Your task to perform on an android device: turn off priority inbox in the gmail app Image 0: 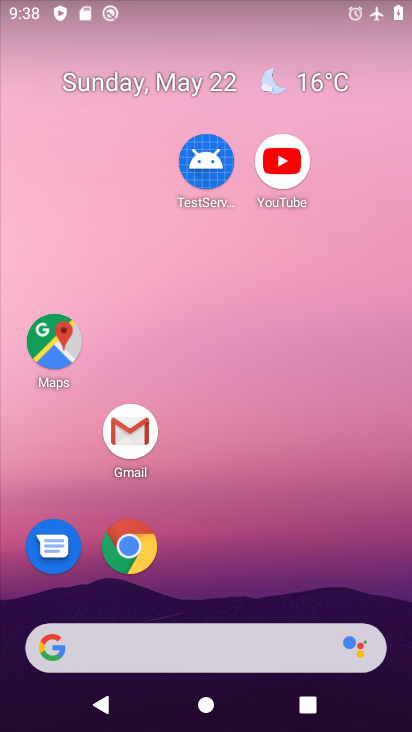
Step 0: drag from (270, 705) to (198, 203)
Your task to perform on an android device: turn off priority inbox in the gmail app Image 1: 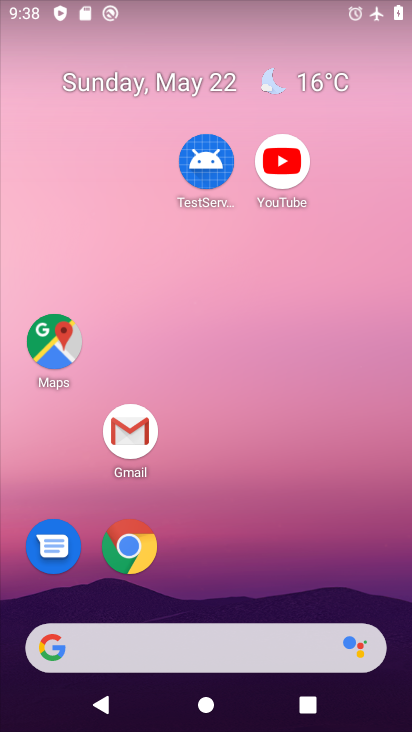
Step 1: drag from (285, 701) to (280, 148)
Your task to perform on an android device: turn off priority inbox in the gmail app Image 2: 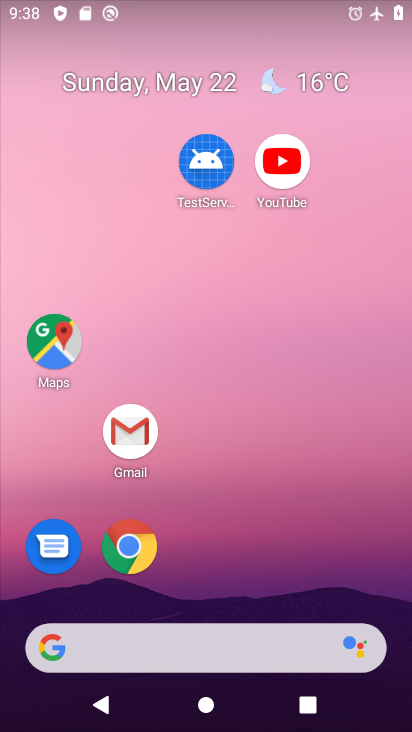
Step 2: drag from (238, 698) to (188, 156)
Your task to perform on an android device: turn off priority inbox in the gmail app Image 3: 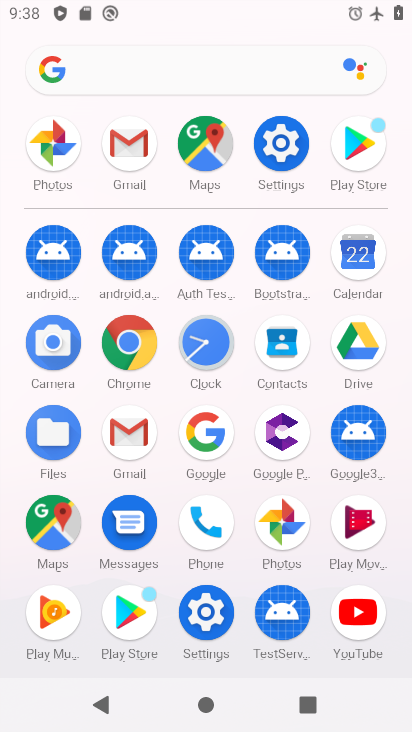
Step 3: click (136, 426)
Your task to perform on an android device: turn off priority inbox in the gmail app Image 4: 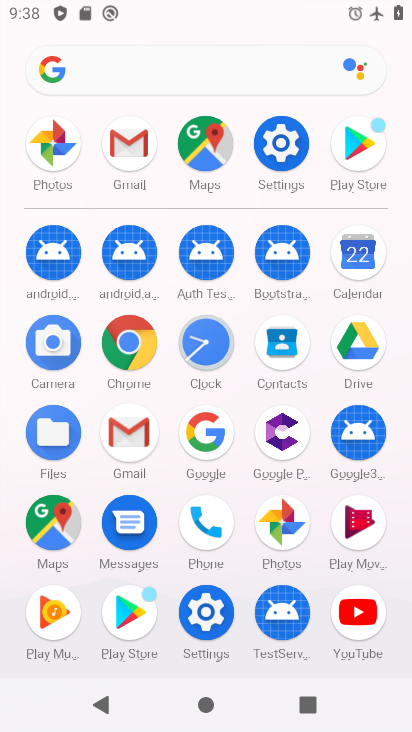
Step 4: click (141, 420)
Your task to perform on an android device: turn off priority inbox in the gmail app Image 5: 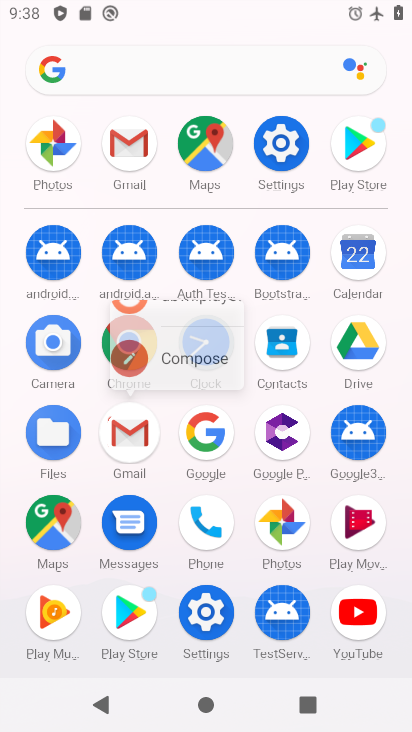
Step 5: click (141, 420)
Your task to perform on an android device: turn off priority inbox in the gmail app Image 6: 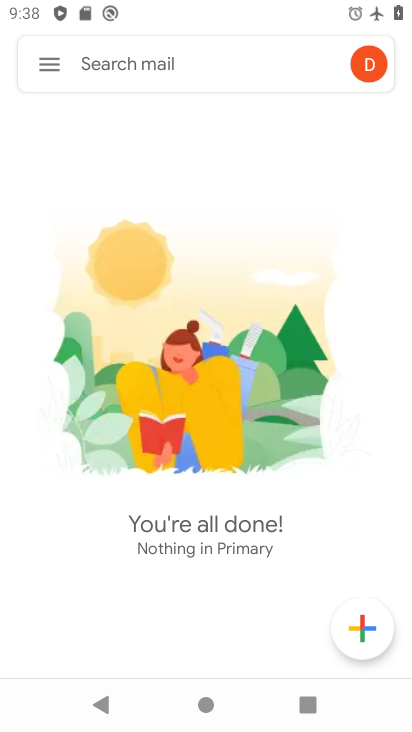
Step 6: click (38, 63)
Your task to perform on an android device: turn off priority inbox in the gmail app Image 7: 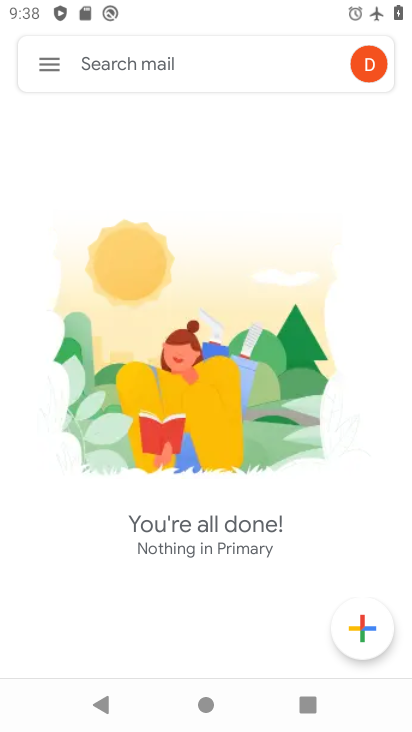
Step 7: click (58, 56)
Your task to perform on an android device: turn off priority inbox in the gmail app Image 8: 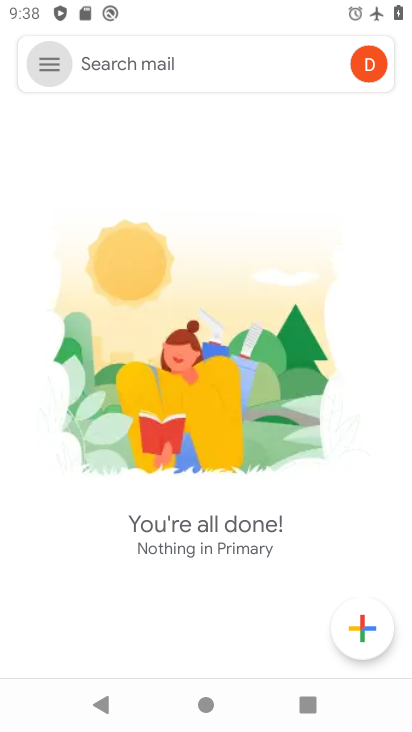
Step 8: click (58, 56)
Your task to perform on an android device: turn off priority inbox in the gmail app Image 9: 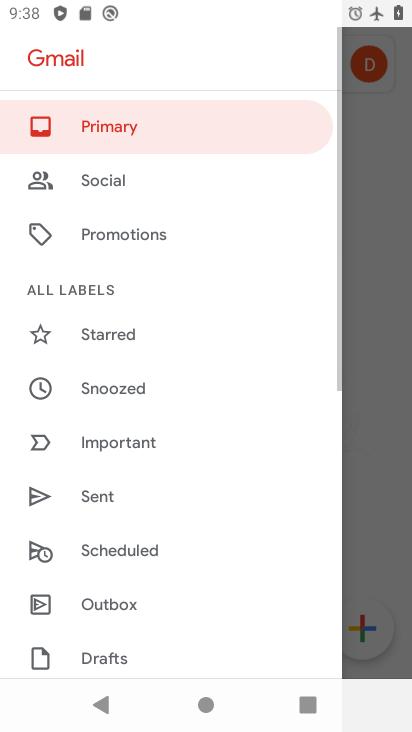
Step 9: drag from (161, 603) to (207, 93)
Your task to perform on an android device: turn off priority inbox in the gmail app Image 10: 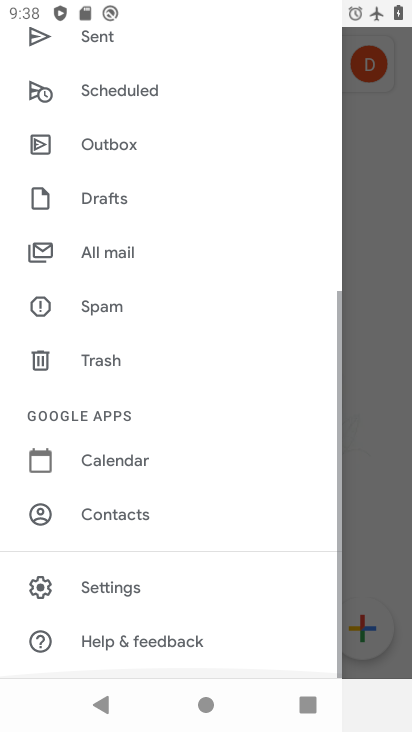
Step 10: drag from (199, 510) to (165, 188)
Your task to perform on an android device: turn off priority inbox in the gmail app Image 11: 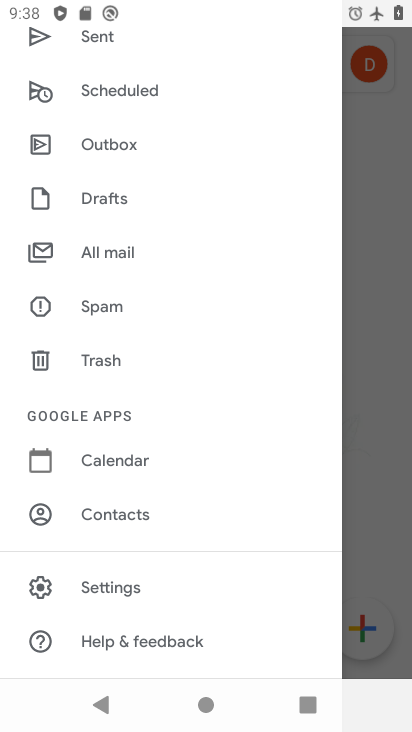
Step 11: click (108, 592)
Your task to perform on an android device: turn off priority inbox in the gmail app Image 12: 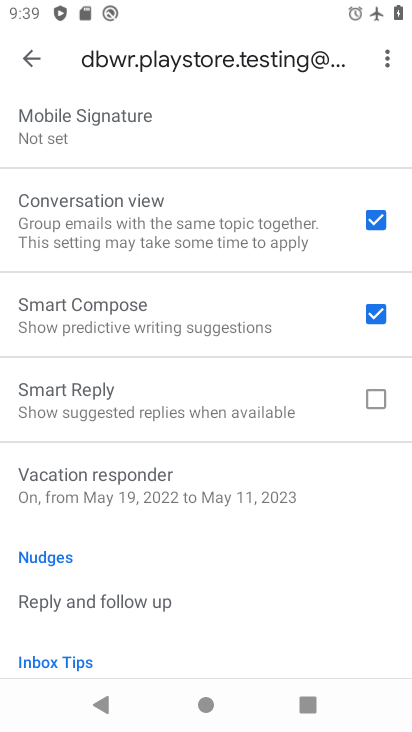
Step 12: drag from (109, 162) to (120, 558)
Your task to perform on an android device: turn off priority inbox in the gmail app Image 13: 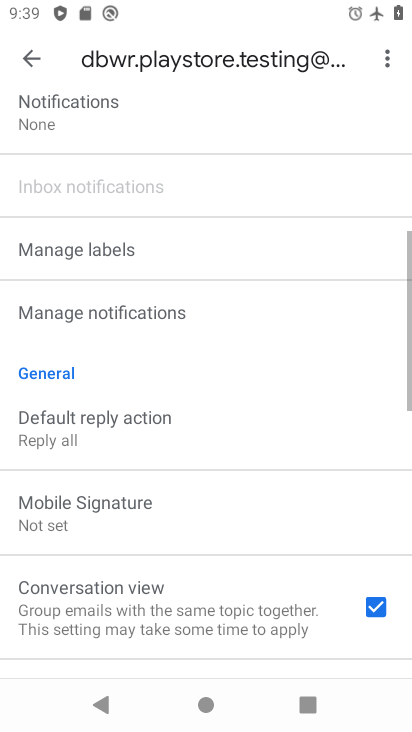
Step 13: drag from (183, 289) to (158, 546)
Your task to perform on an android device: turn off priority inbox in the gmail app Image 14: 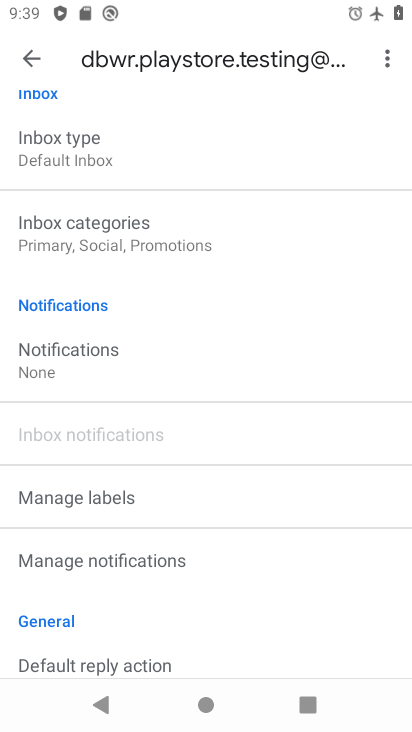
Step 14: click (30, 139)
Your task to perform on an android device: turn off priority inbox in the gmail app Image 15: 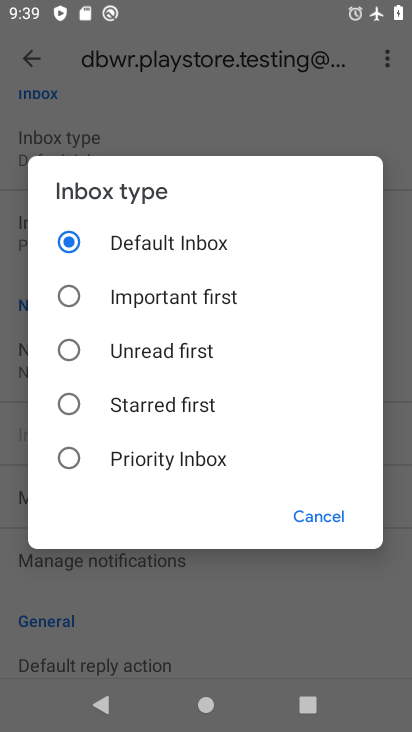
Step 15: click (73, 446)
Your task to perform on an android device: turn off priority inbox in the gmail app Image 16: 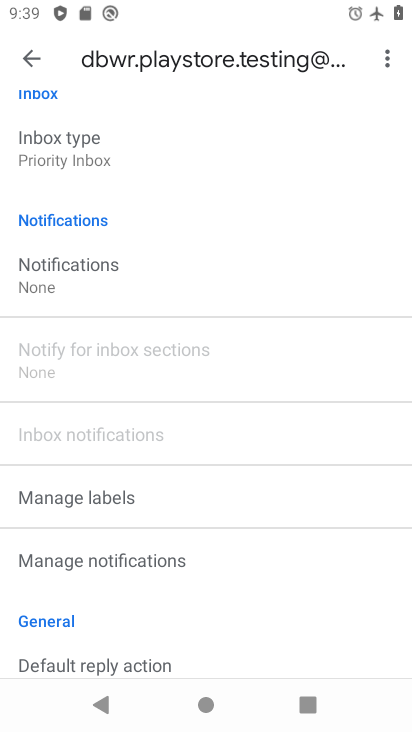
Step 16: task complete